Your task to perform on an android device: Go to ESPN.com Image 0: 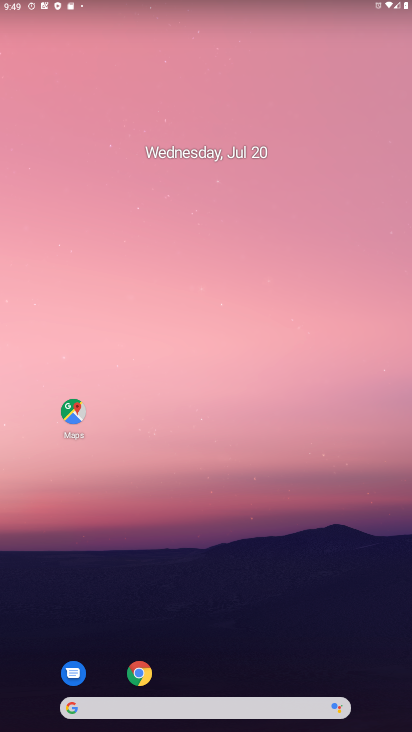
Step 0: drag from (216, 727) to (212, 256)
Your task to perform on an android device: Go to ESPN.com Image 1: 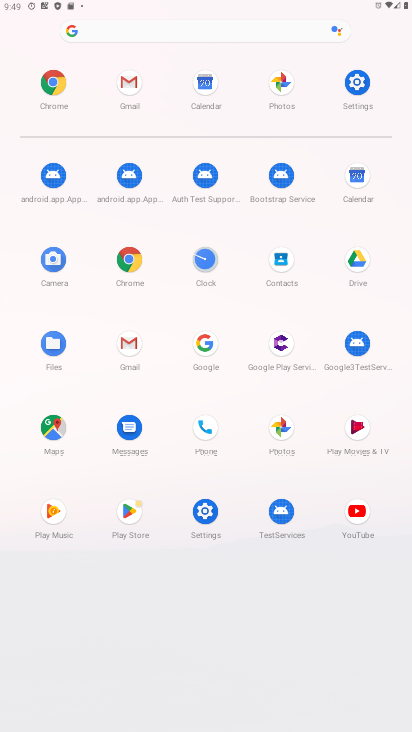
Step 1: click (132, 264)
Your task to perform on an android device: Go to ESPN.com Image 2: 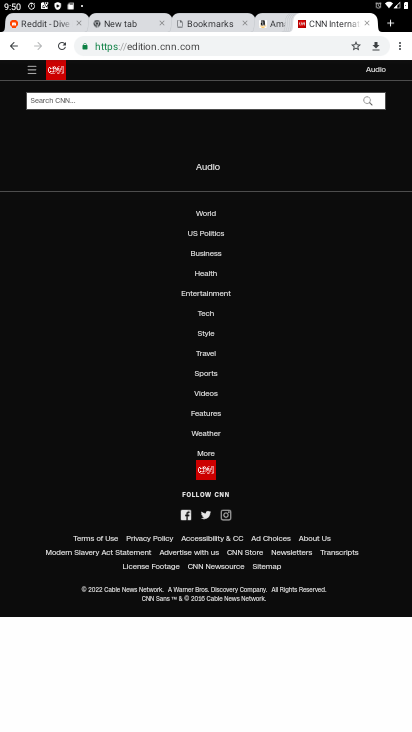
Step 2: click (399, 45)
Your task to perform on an android device: Go to ESPN.com Image 3: 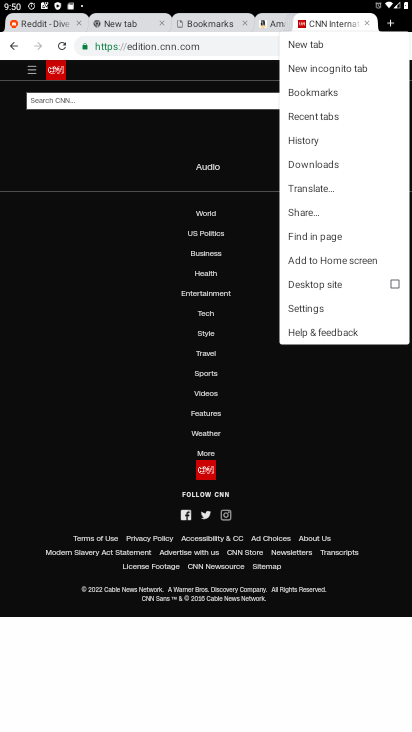
Step 3: click (313, 43)
Your task to perform on an android device: Go to ESPN.com Image 4: 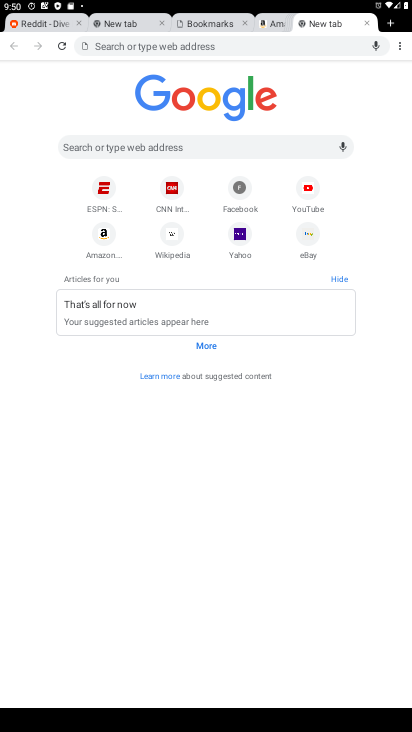
Step 4: click (100, 190)
Your task to perform on an android device: Go to ESPN.com Image 5: 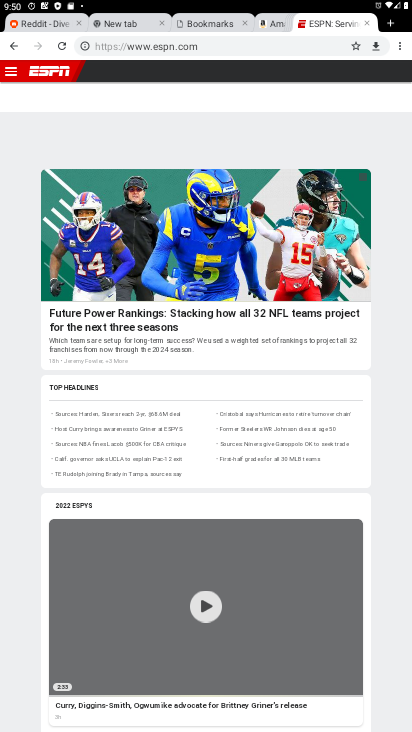
Step 5: task complete